Your task to perform on an android device: add a label to a message in the gmail app Image 0: 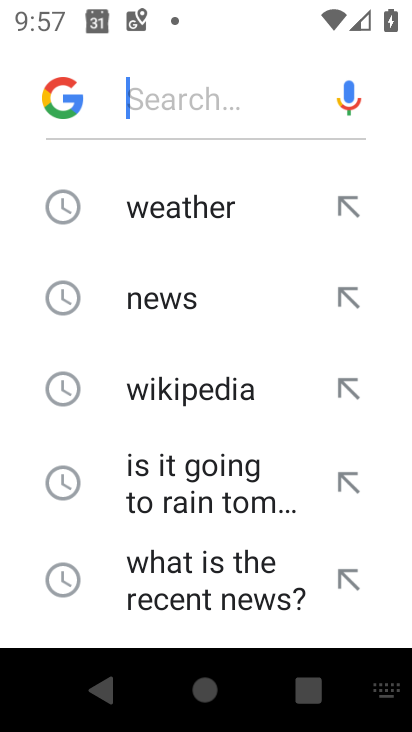
Step 0: press home button
Your task to perform on an android device: add a label to a message in the gmail app Image 1: 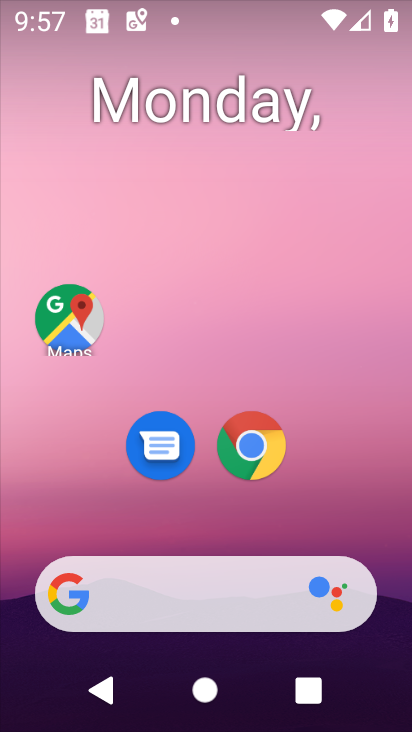
Step 1: drag from (253, 706) to (338, 76)
Your task to perform on an android device: add a label to a message in the gmail app Image 2: 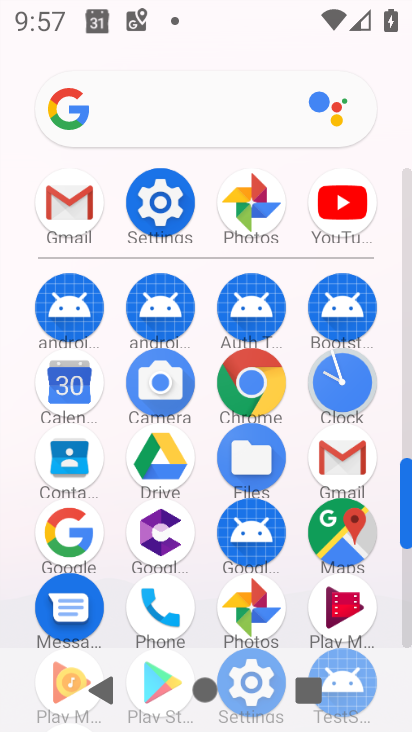
Step 2: click (61, 196)
Your task to perform on an android device: add a label to a message in the gmail app Image 3: 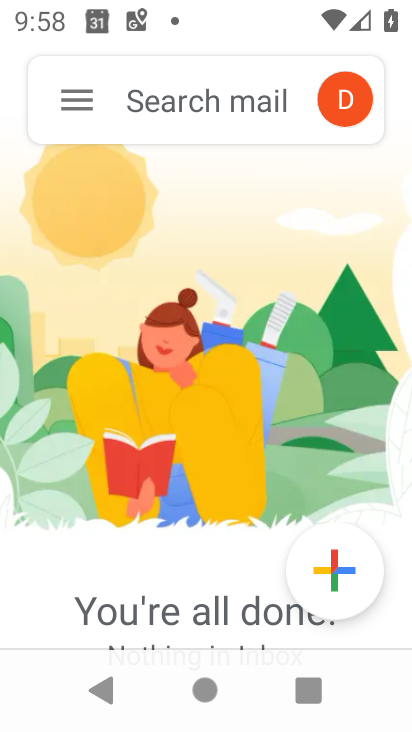
Step 3: task complete